Your task to perform on an android device: See recent photos Image 0: 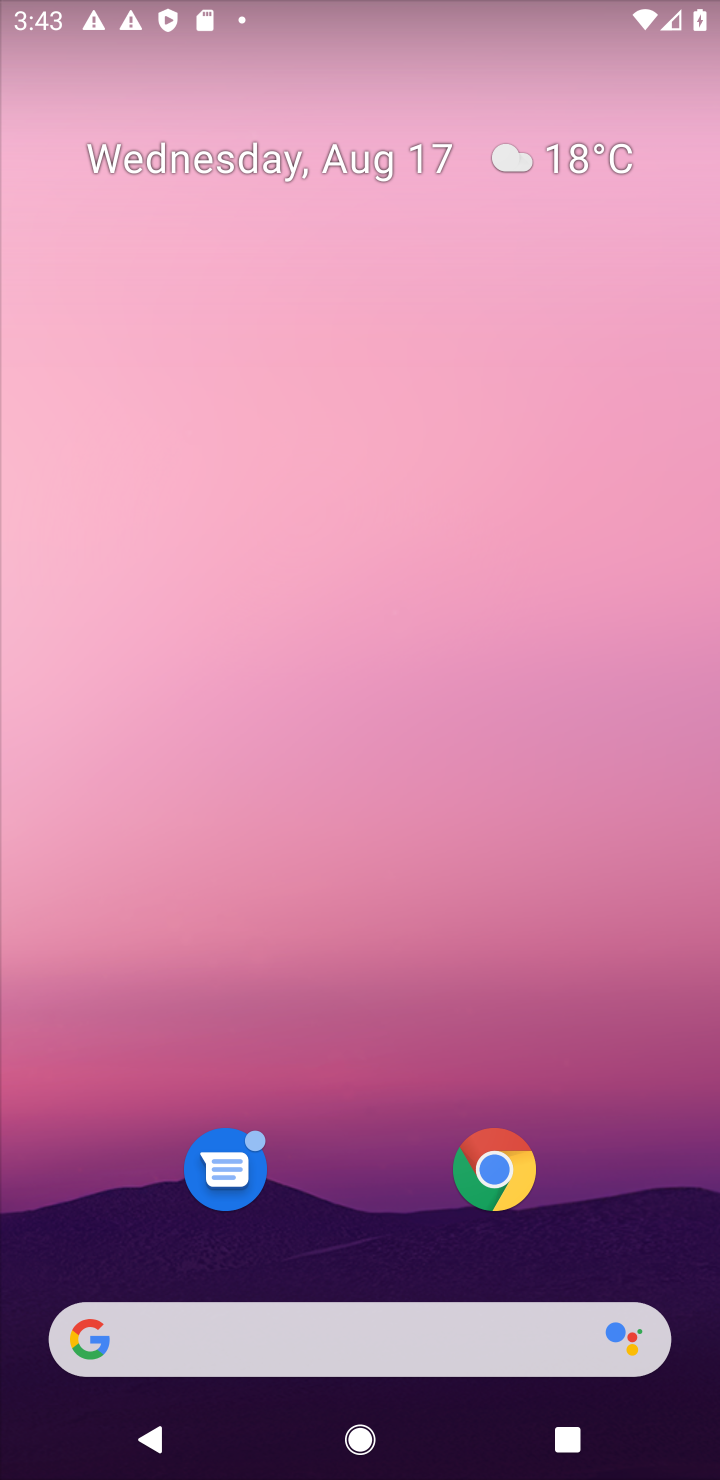
Step 0: press home button
Your task to perform on an android device: See recent photos Image 1: 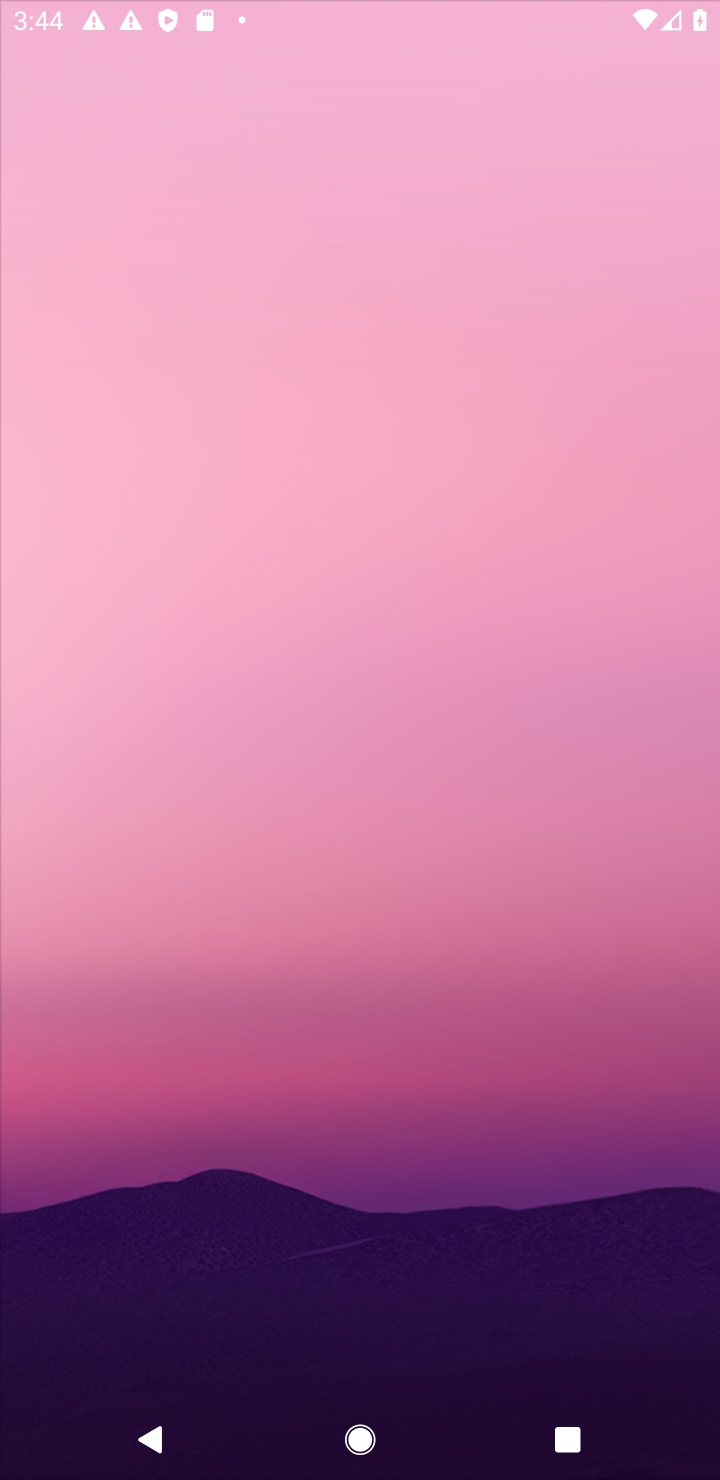
Step 1: drag from (352, 1182) to (335, 70)
Your task to perform on an android device: See recent photos Image 2: 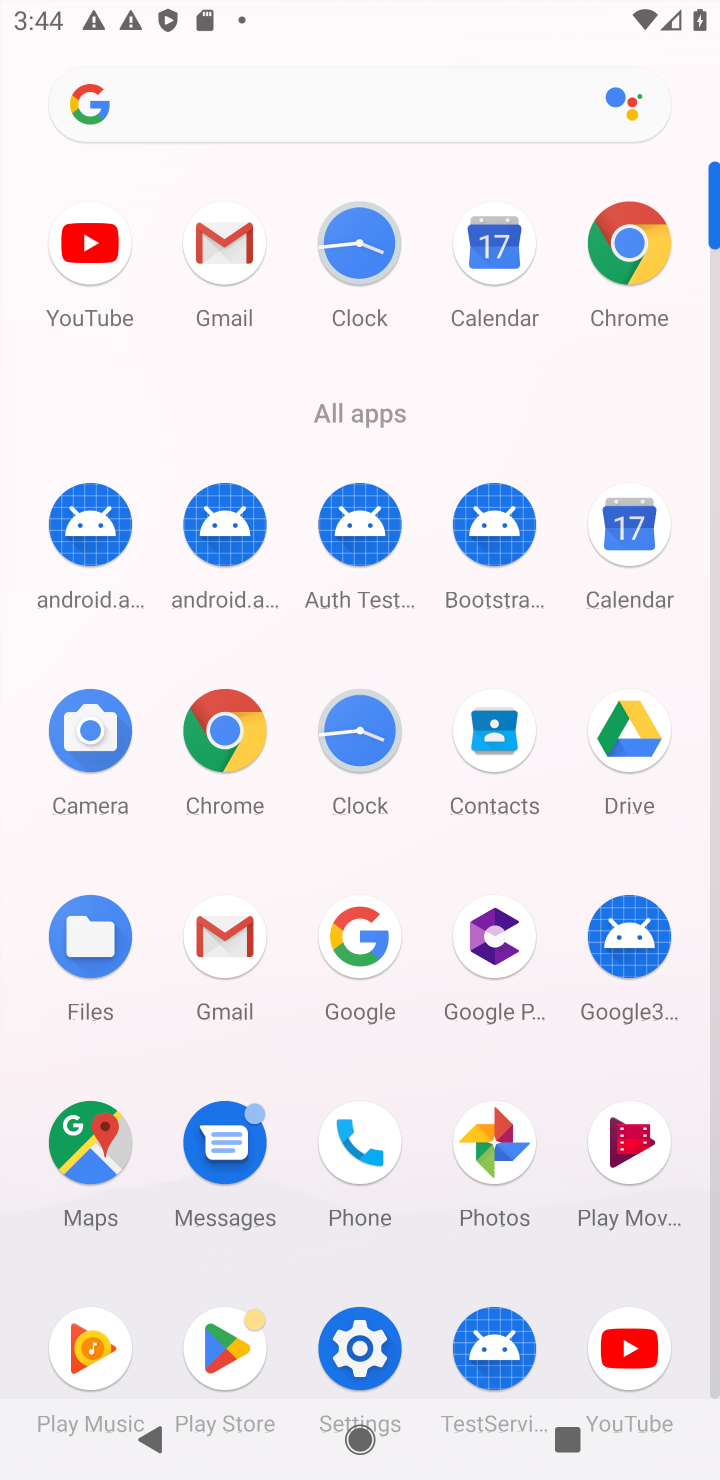
Step 2: click (211, 931)
Your task to perform on an android device: See recent photos Image 3: 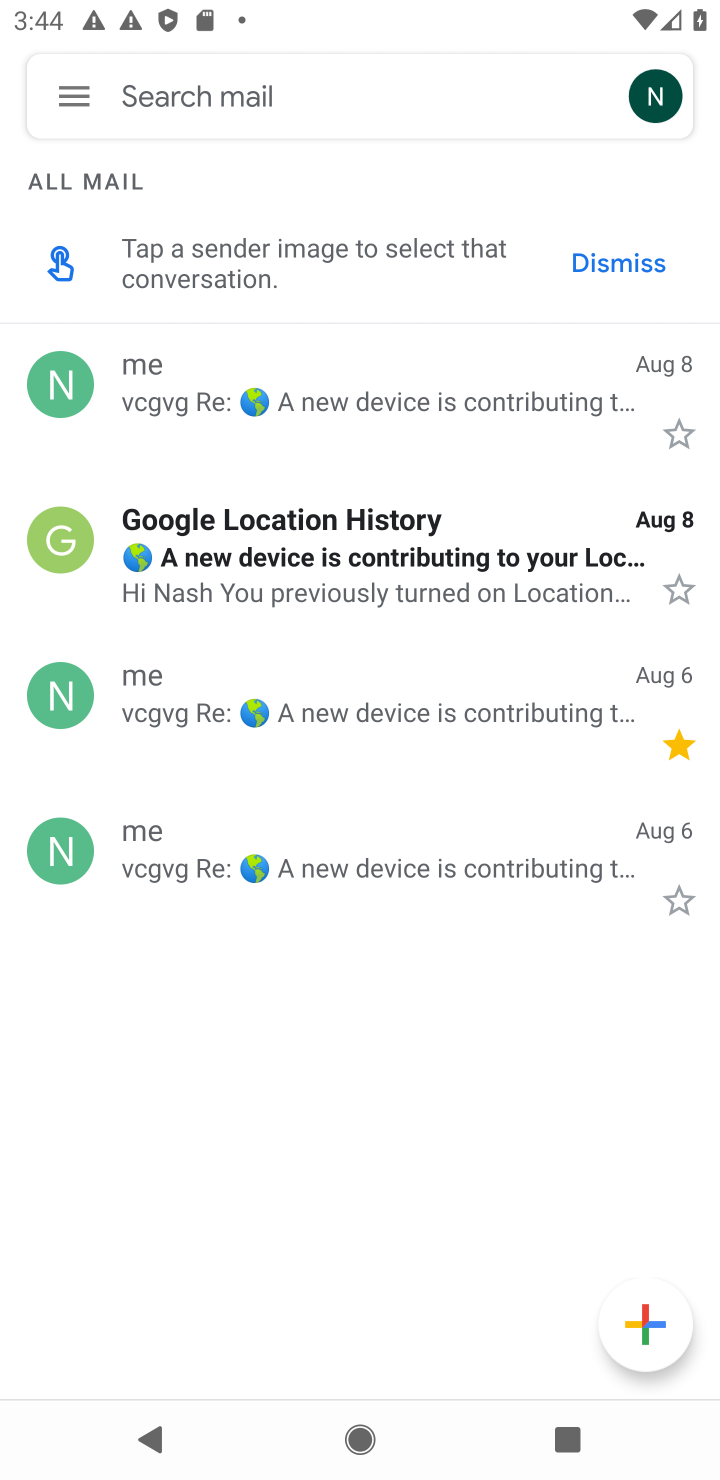
Step 3: click (82, 95)
Your task to perform on an android device: See recent photos Image 4: 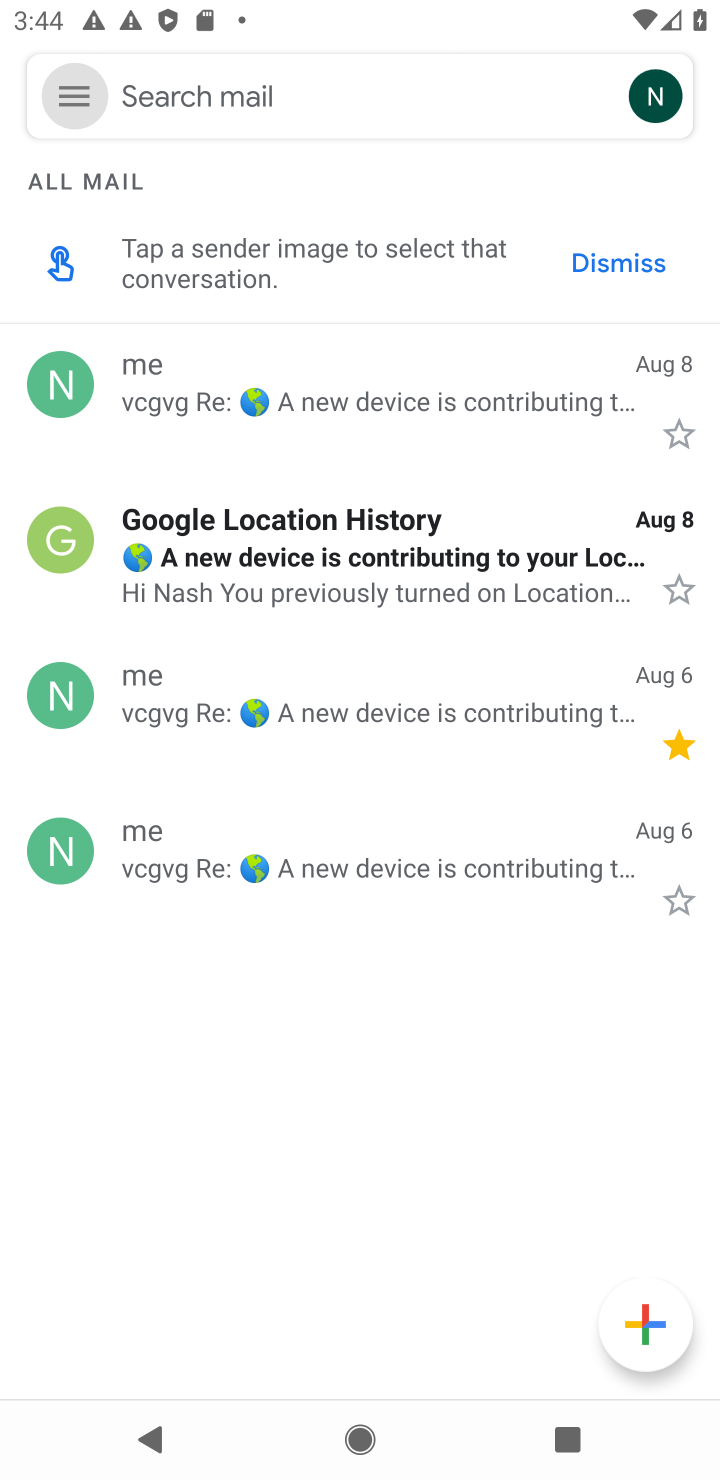
Step 4: drag from (82, 95) to (660, 737)
Your task to perform on an android device: See recent photos Image 5: 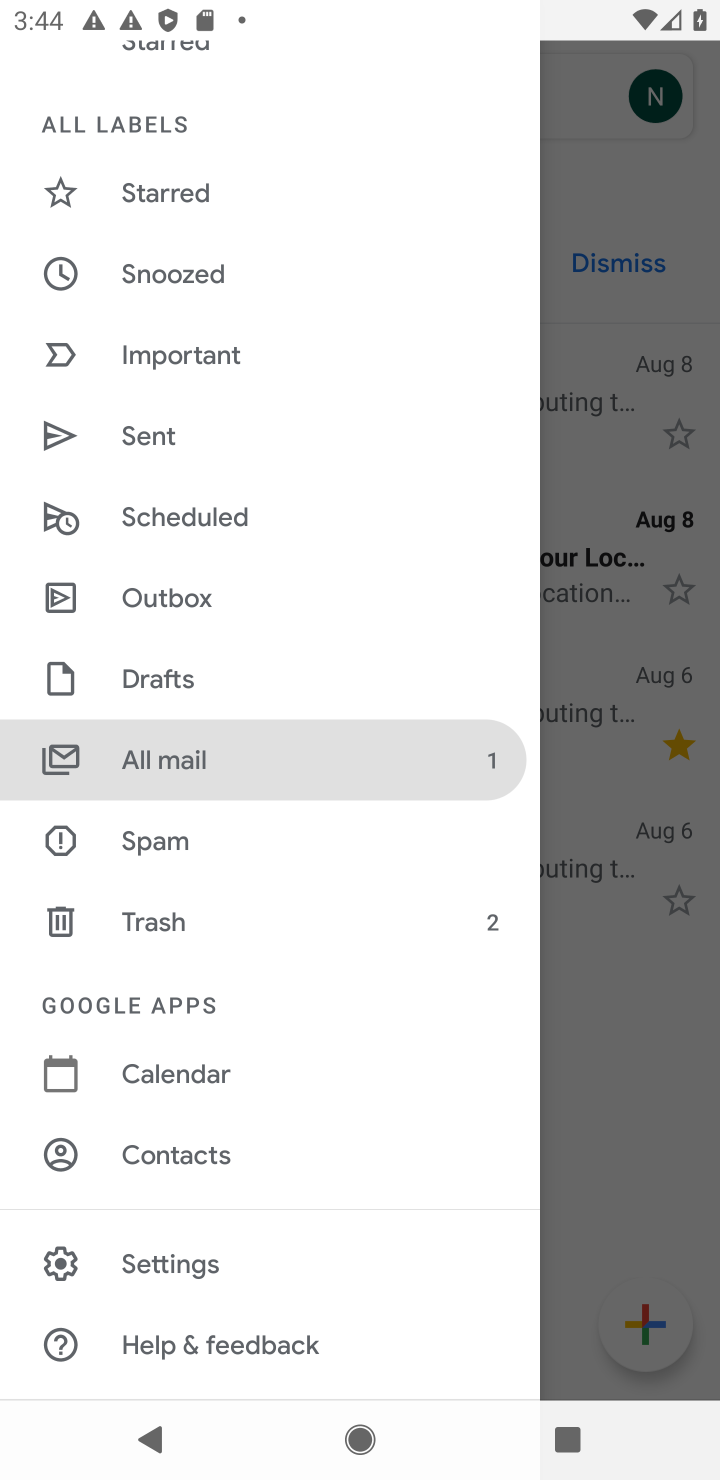
Step 5: press home button
Your task to perform on an android device: See recent photos Image 6: 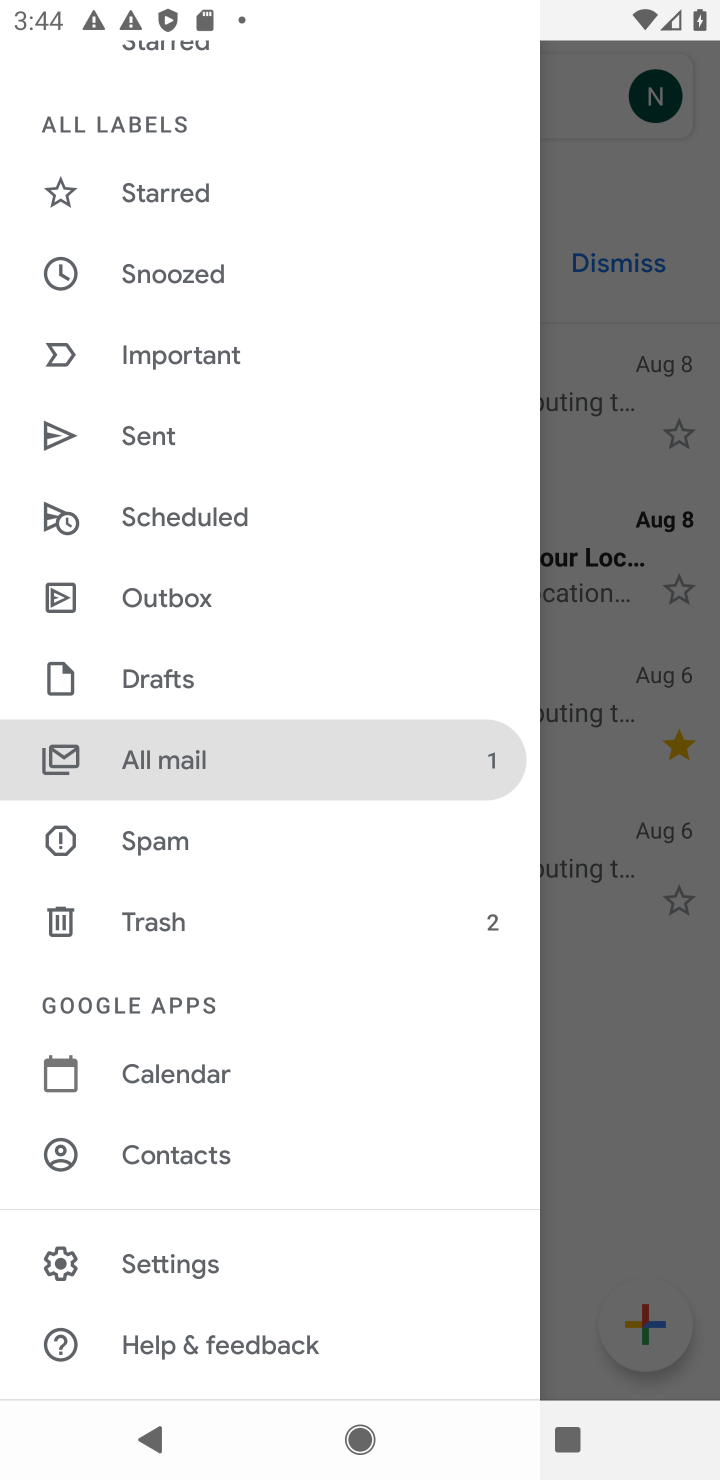
Step 6: drag from (660, 737) to (709, 1103)
Your task to perform on an android device: See recent photos Image 7: 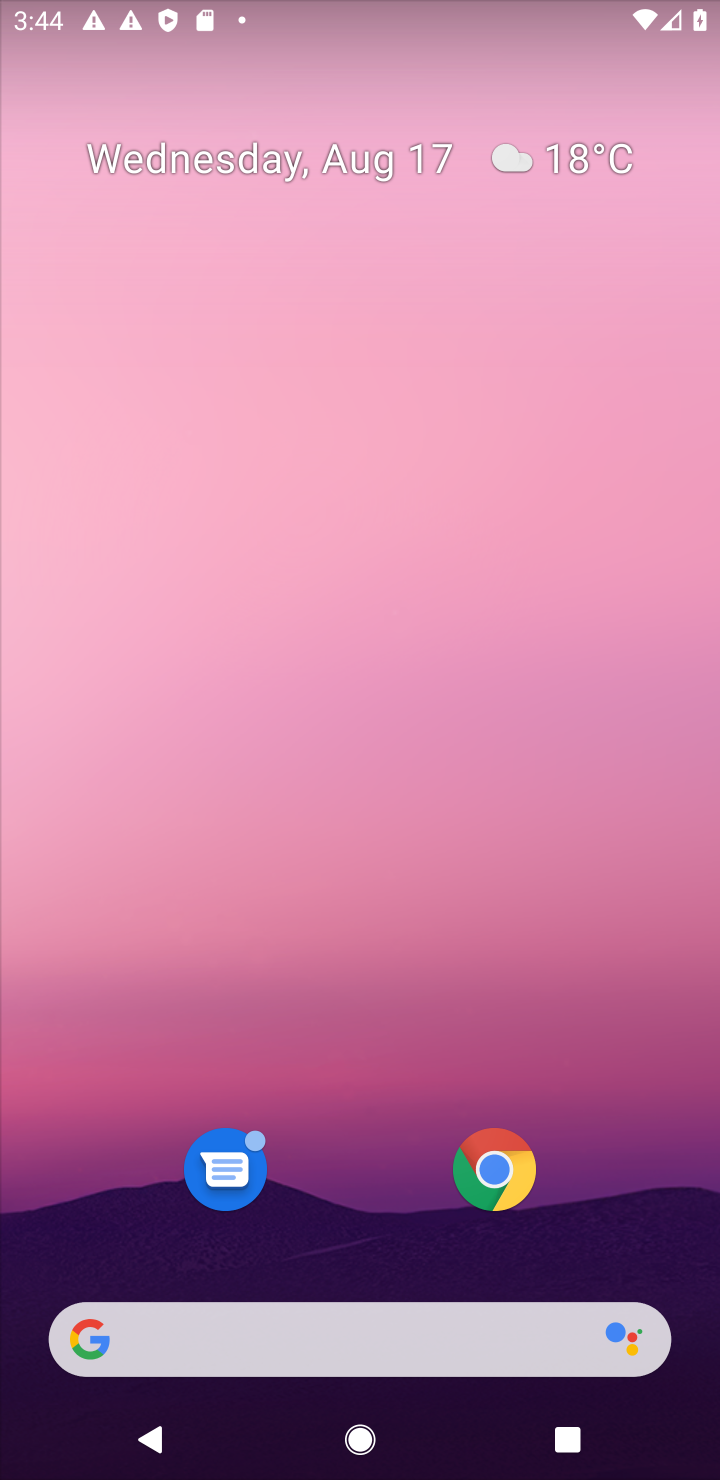
Step 7: drag from (389, 1210) to (510, 156)
Your task to perform on an android device: See recent photos Image 8: 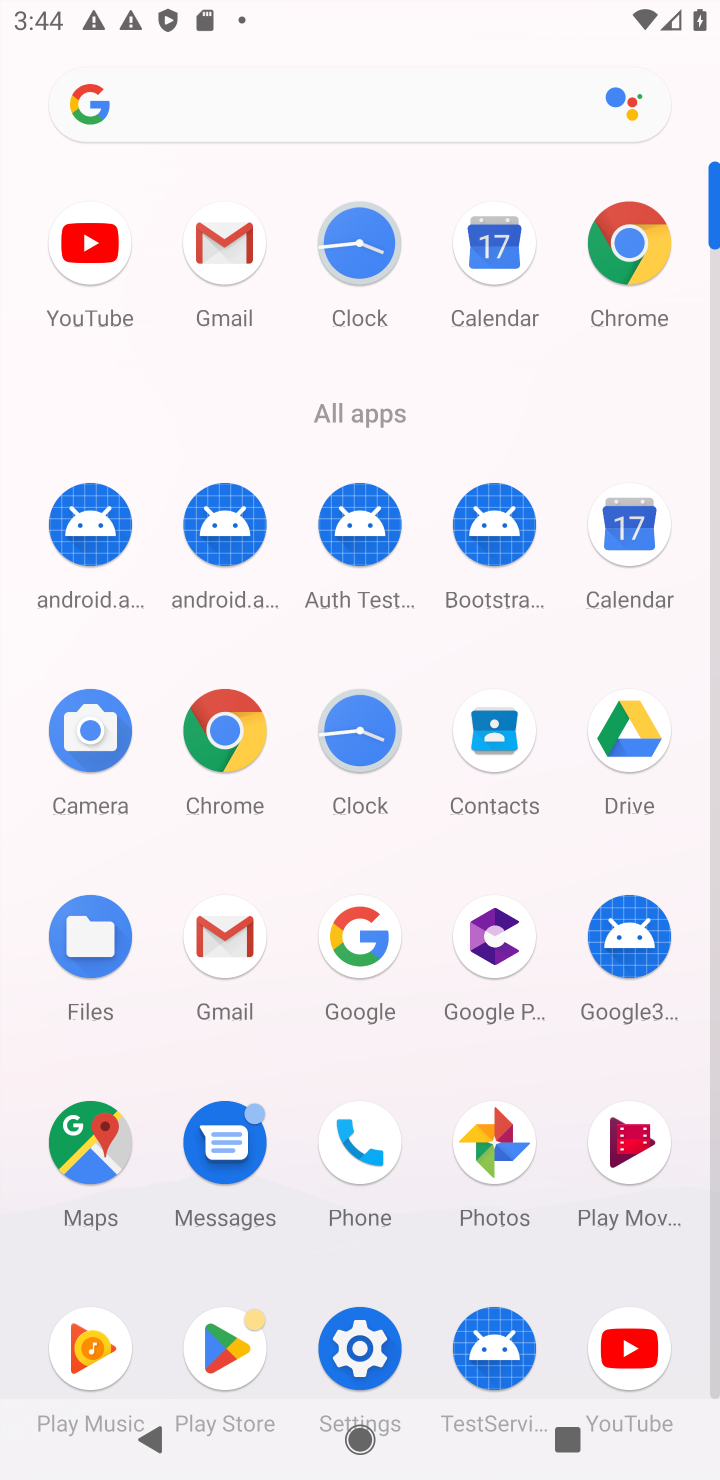
Step 8: click (484, 1132)
Your task to perform on an android device: See recent photos Image 9: 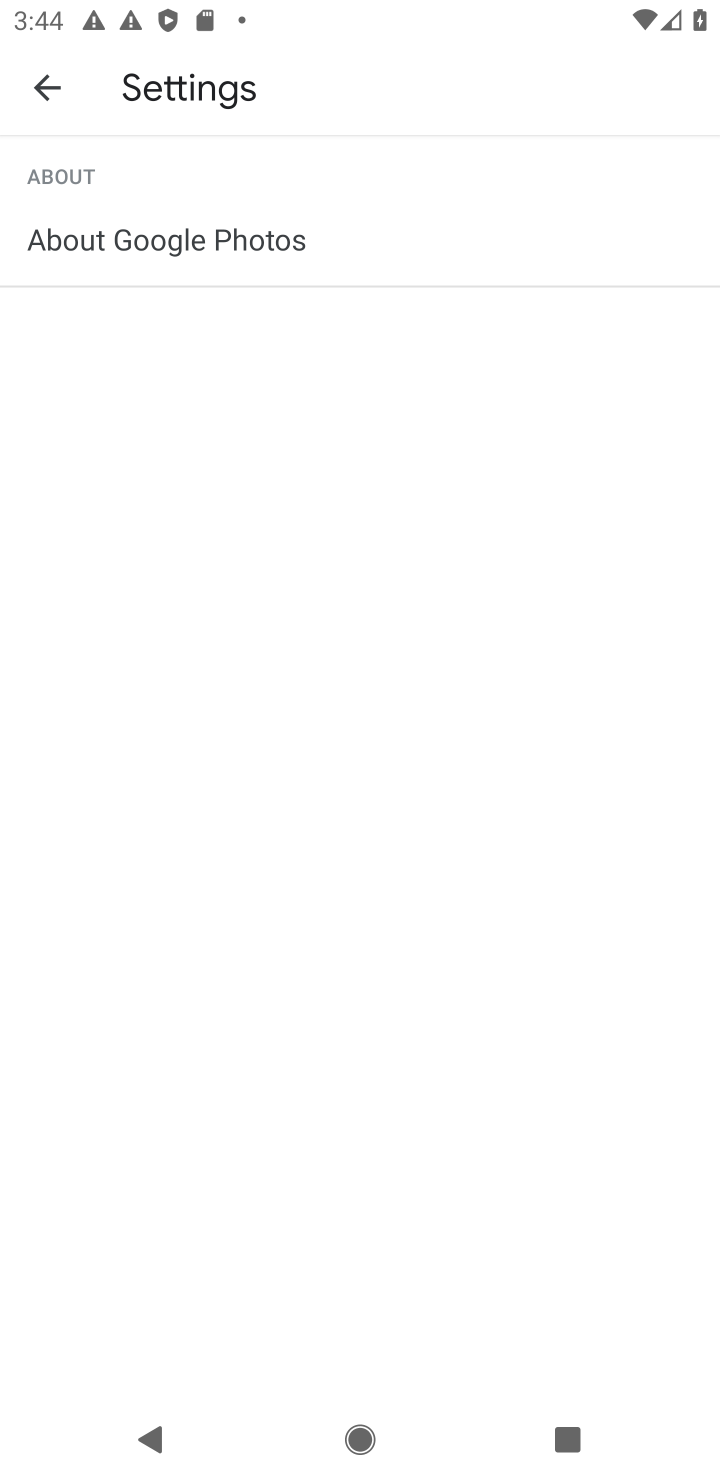
Step 9: click (33, 81)
Your task to perform on an android device: See recent photos Image 10: 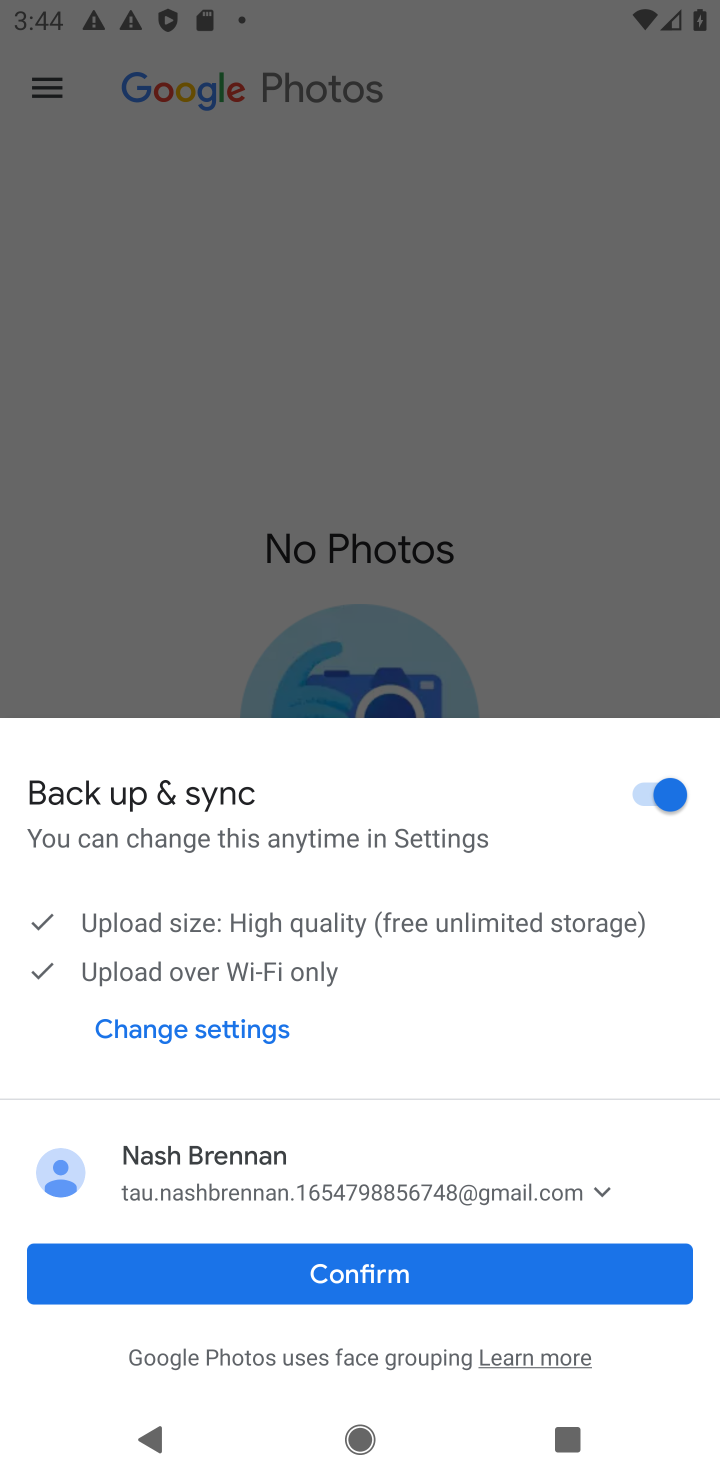
Step 10: click (257, 1259)
Your task to perform on an android device: See recent photos Image 11: 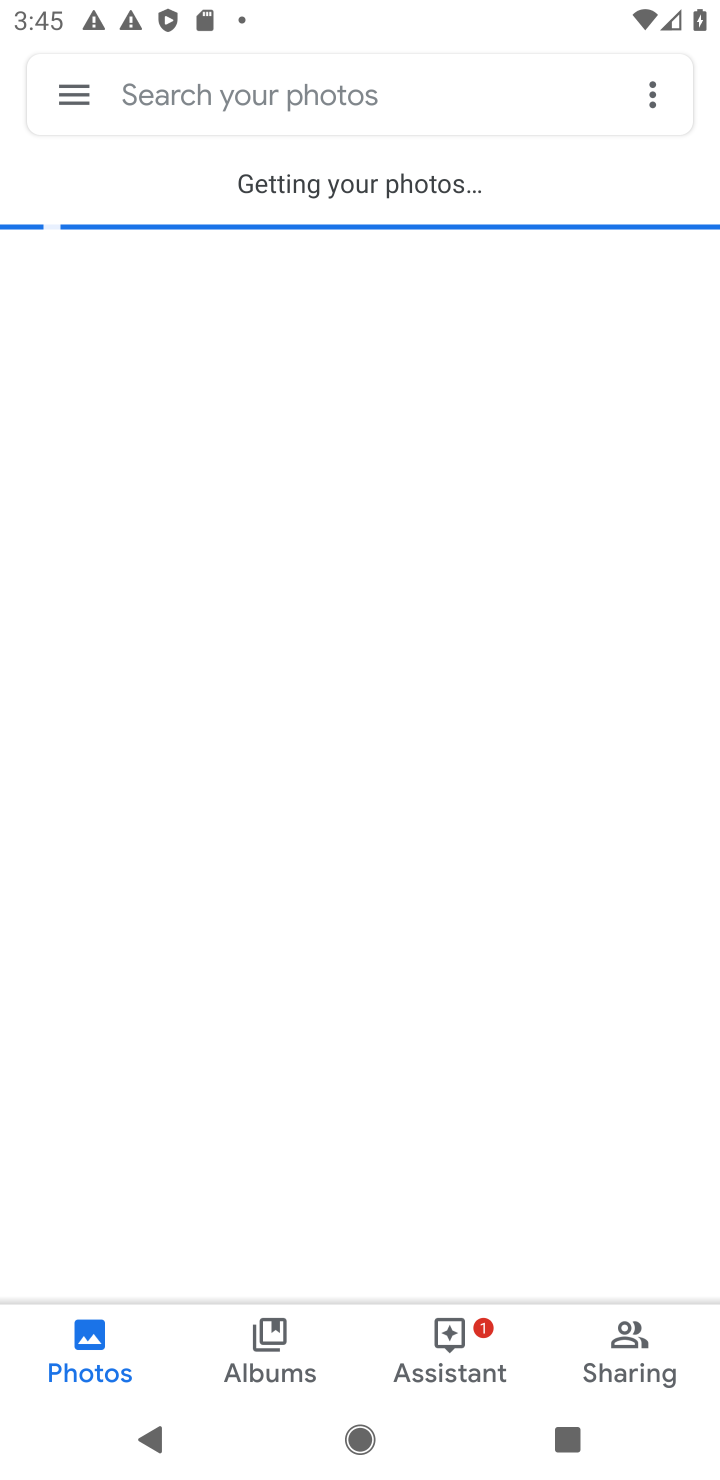
Step 11: task complete